Your task to perform on an android device: Turn on the flashlight Image 0: 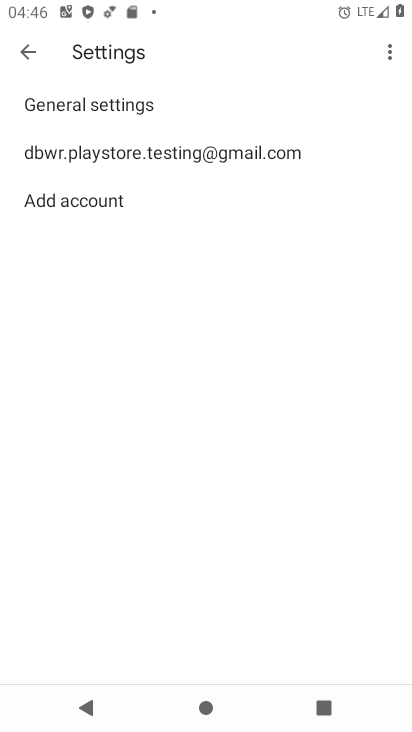
Step 0: task impossible